Your task to perform on an android device: toggle priority inbox in the gmail app Image 0: 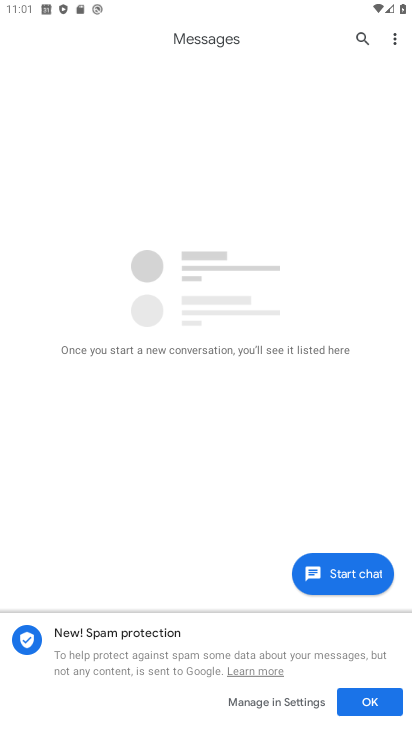
Step 0: press home button
Your task to perform on an android device: toggle priority inbox in the gmail app Image 1: 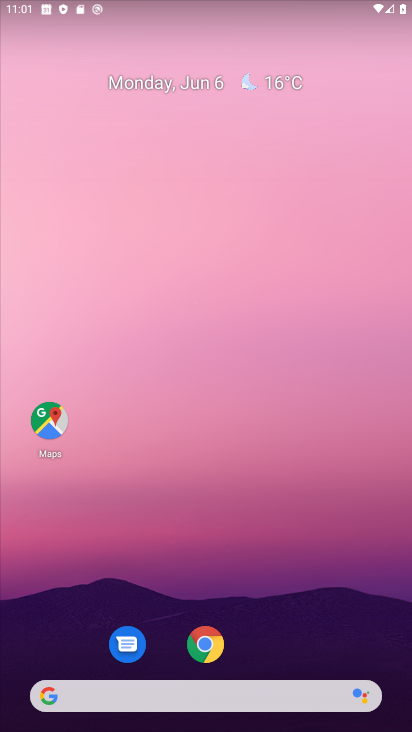
Step 1: drag from (303, 623) to (224, 99)
Your task to perform on an android device: toggle priority inbox in the gmail app Image 2: 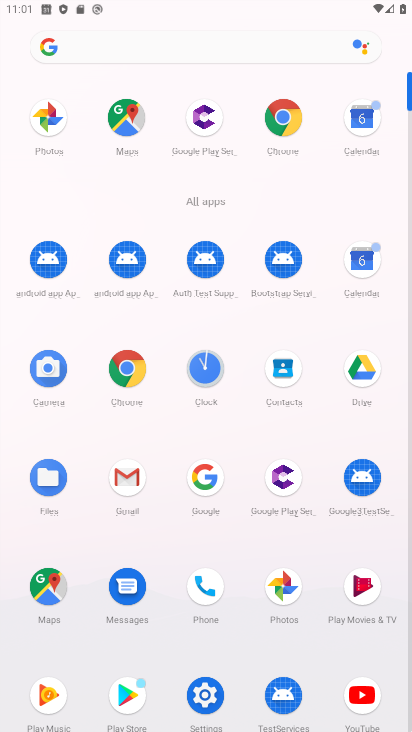
Step 2: click (137, 473)
Your task to perform on an android device: toggle priority inbox in the gmail app Image 3: 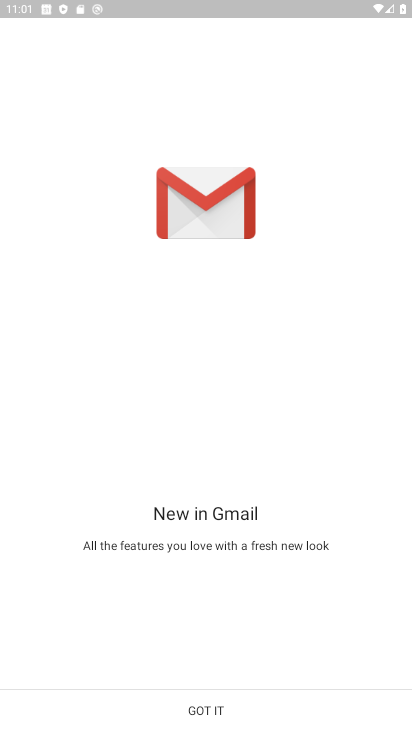
Step 3: click (226, 712)
Your task to perform on an android device: toggle priority inbox in the gmail app Image 4: 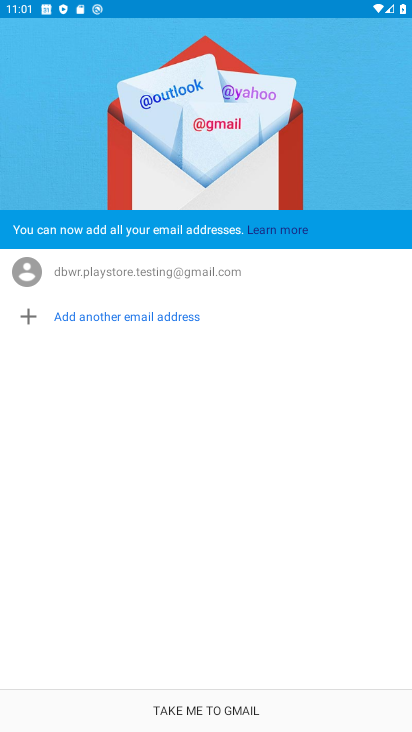
Step 4: click (226, 712)
Your task to perform on an android device: toggle priority inbox in the gmail app Image 5: 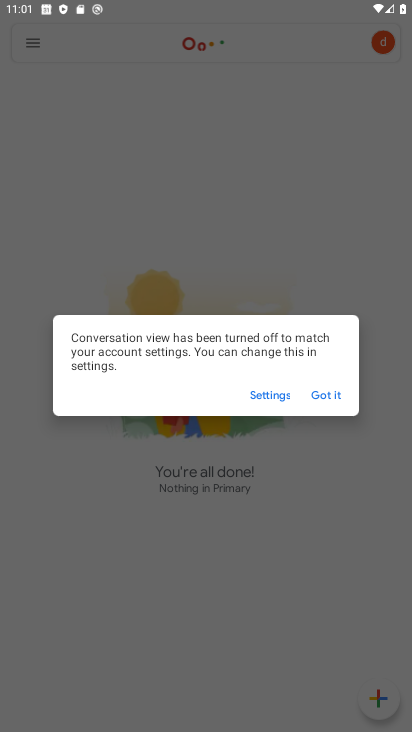
Step 5: click (333, 394)
Your task to perform on an android device: toggle priority inbox in the gmail app Image 6: 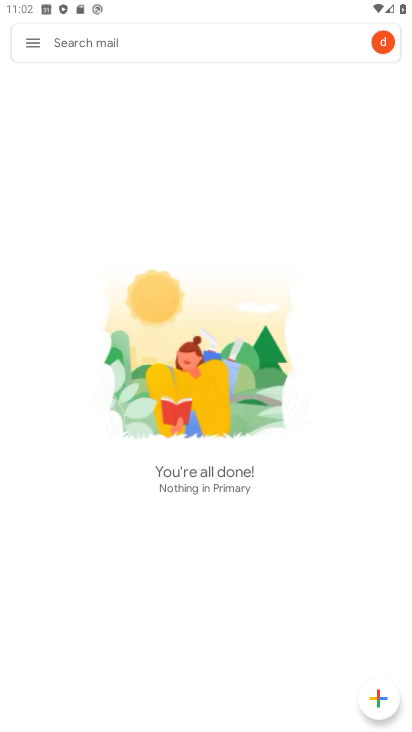
Step 6: click (35, 42)
Your task to perform on an android device: toggle priority inbox in the gmail app Image 7: 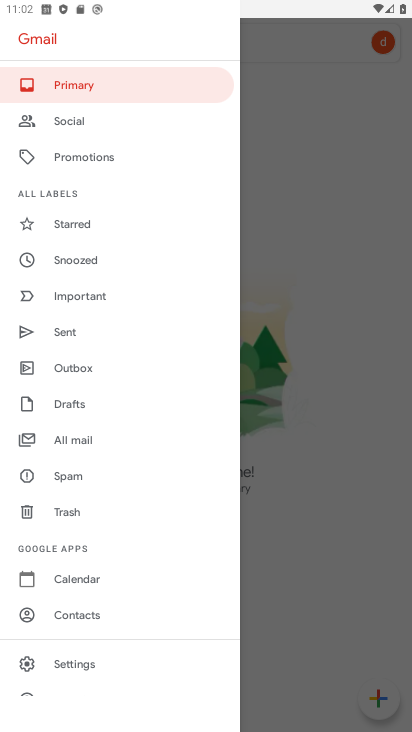
Step 7: click (79, 662)
Your task to perform on an android device: toggle priority inbox in the gmail app Image 8: 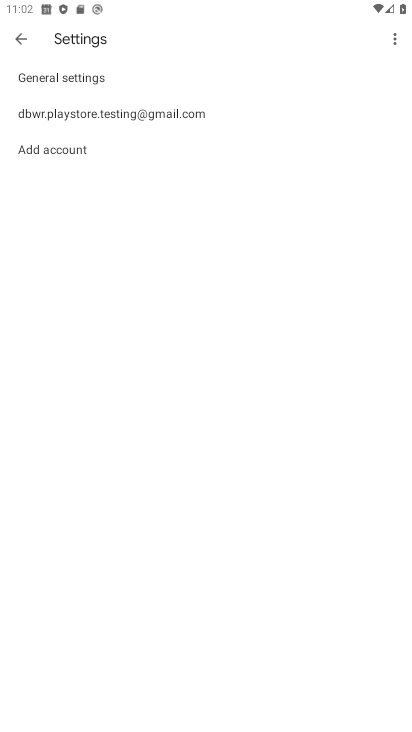
Step 8: click (242, 120)
Your task to perform on an android device: toggle priority inbox in the gmail app Image 9: 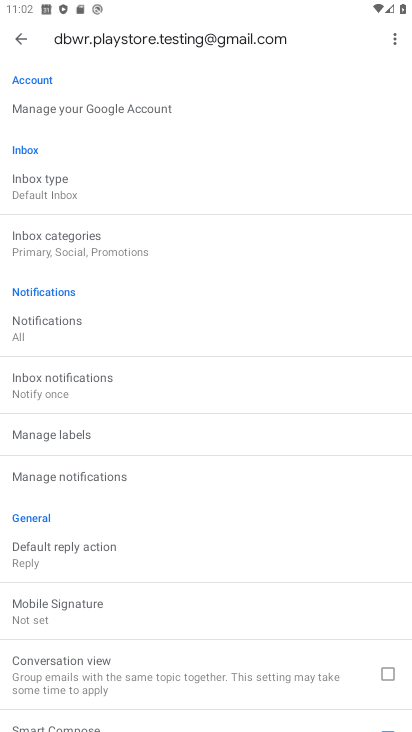
Step 9: drag from (171, 675) to (205, 354)
Your task to perform on an android device: toggle priority inbox in the gmail app Image 10: 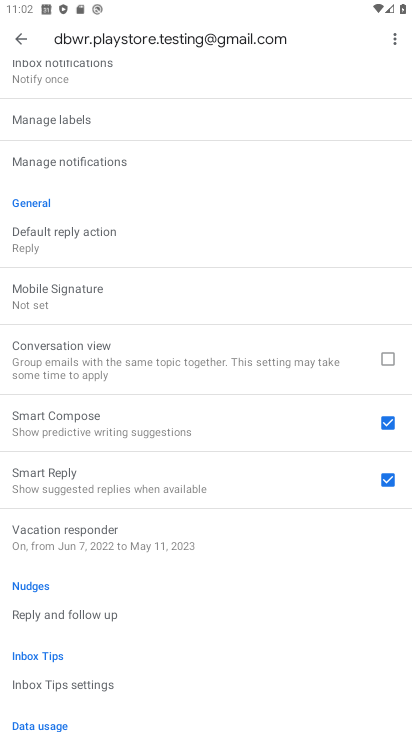
Step 10: drag from (224, 142) to (176, 514)
Your task to perform on an android device: toggle priority inbox in the gmail app Image 11: 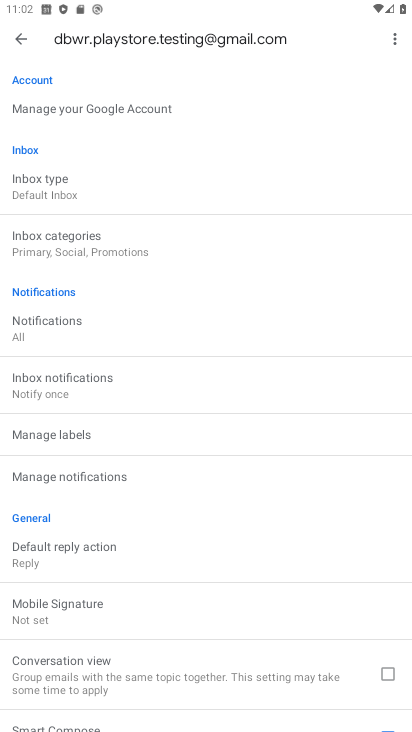
Step 11: click (137, 184)
Your task to perform on an android device: toggle priority inbox in the gmail app Image 12: 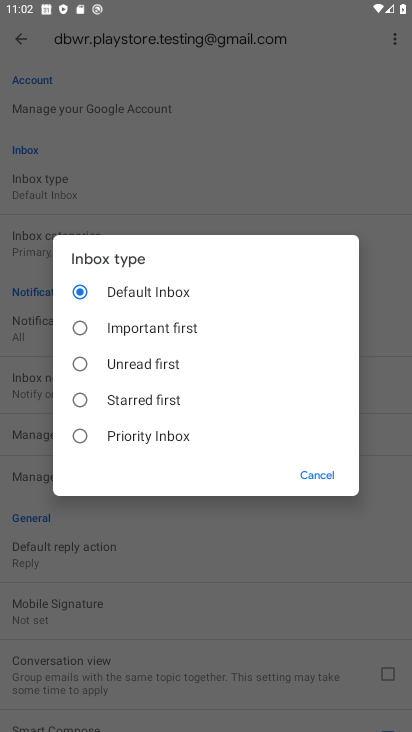
Step 12: click (146, 446)
Your task to perform on an android device: toggle priority inbox in the gmail app Image 13: 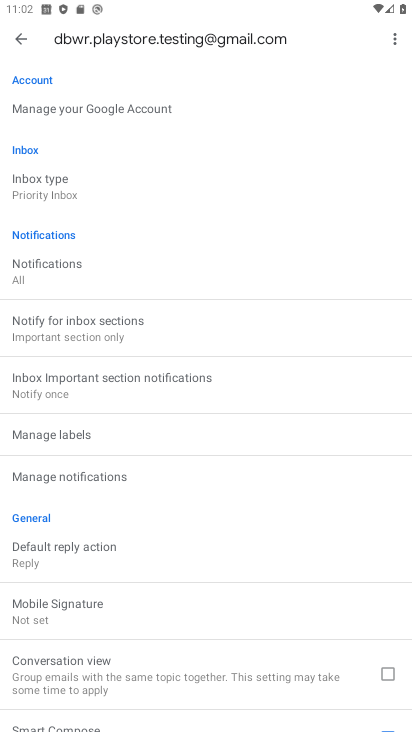
Step 13: task complete